Your task to perform on an android device: change timer sound Image 0: 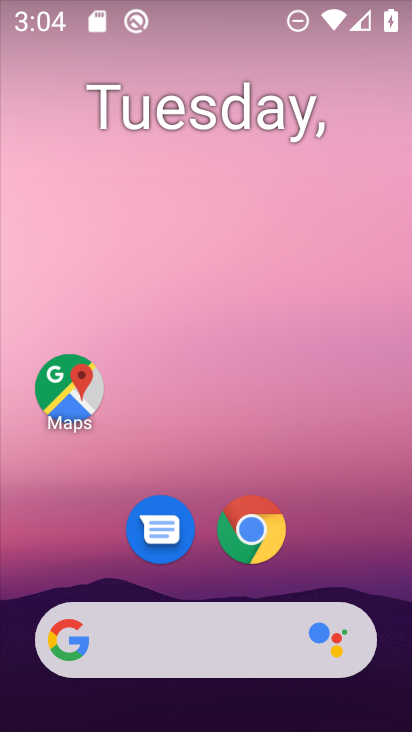
Step 0: drag from (347, 504) to (366, 119)
Your task to perform on an android device: change timer sound Image 1: 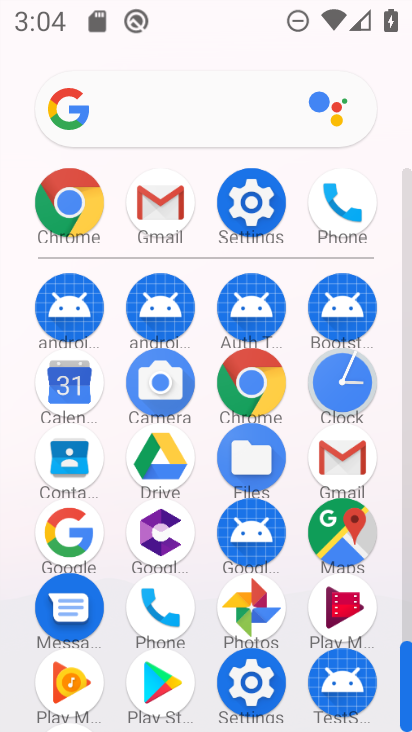
Step 1: click (331, 379)
Your task to perform on an android device: change timer sound Image 2: 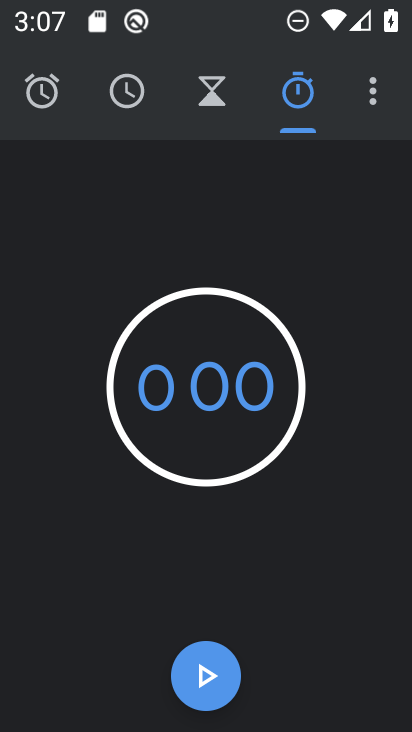
Step 2: click (364, 77)
Your task to perform on an android device: change timer sound Image 3: 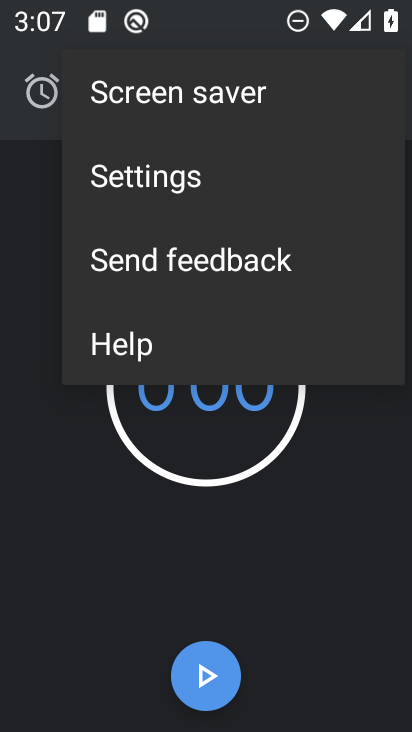
Step 3: click (227, 144)
Your task to perform on an android device: change timer sound Image 4: 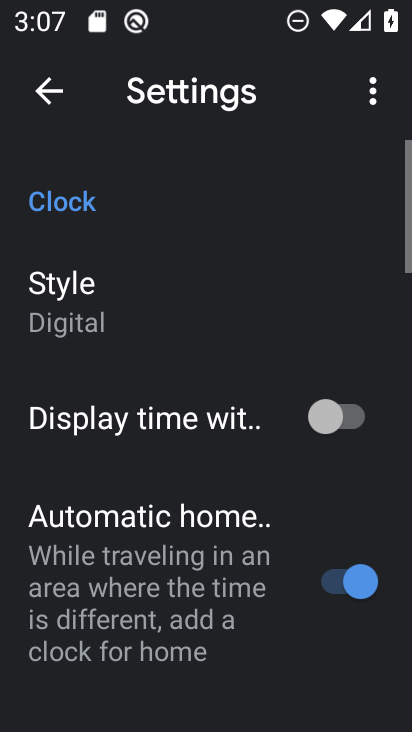
Step 4: task complete